Your task to perform on an android device: open device folders in google photos Image 0: 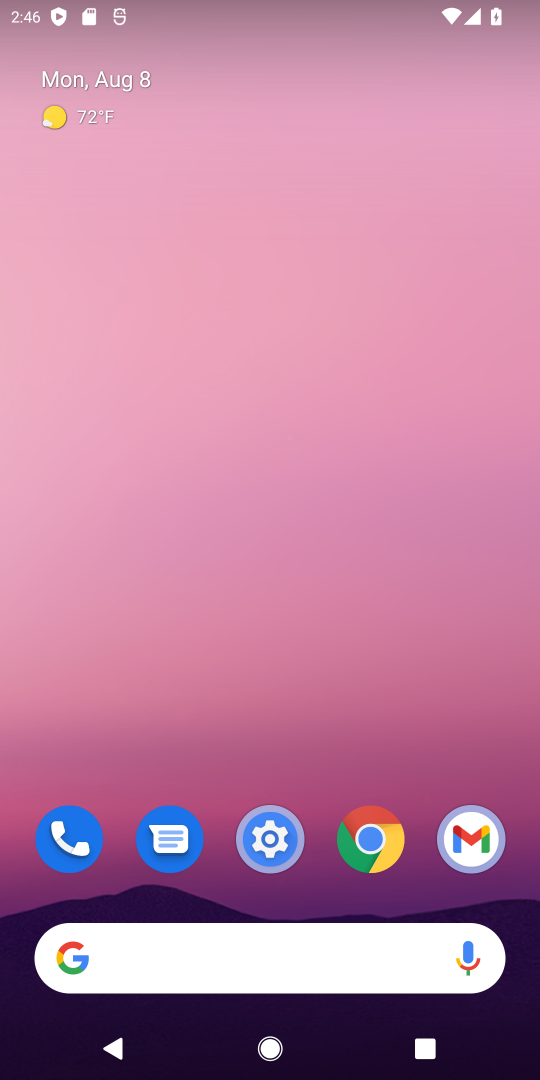
Step 0: press home button
Your task to perform on an android device: open device folders in google photos Image 1: 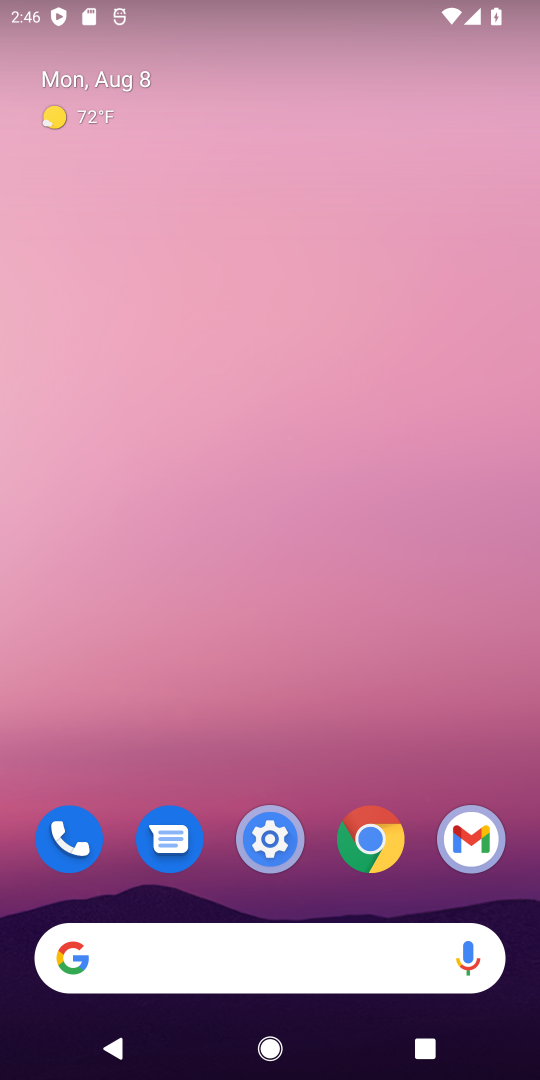
Step 1: drag from (408, 715) to (432, 259)
Your task to perform on an android device: open device folders in google photos Image 2: 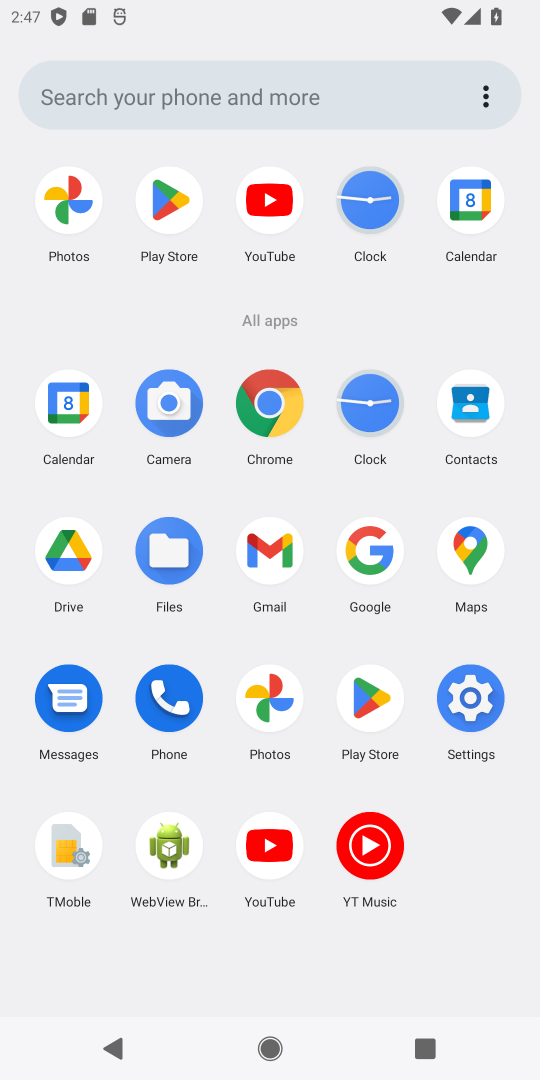
Step 2: click (264, 689)
Your task to perform on an android device: open device folders in google photos Image 3: 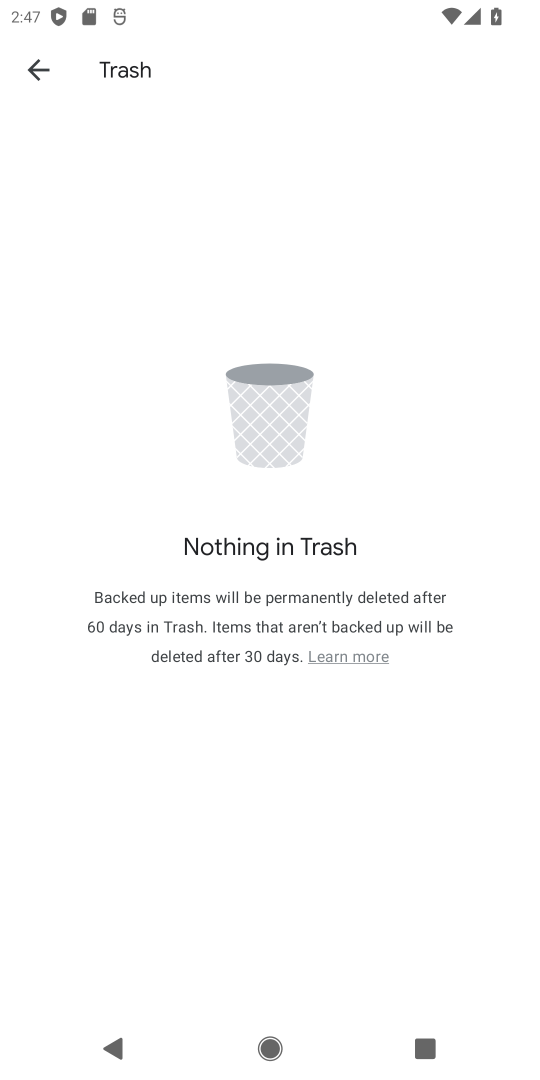
Step 3: press back button
Your task to perform on an android device: open device folders in google photos Image 4: 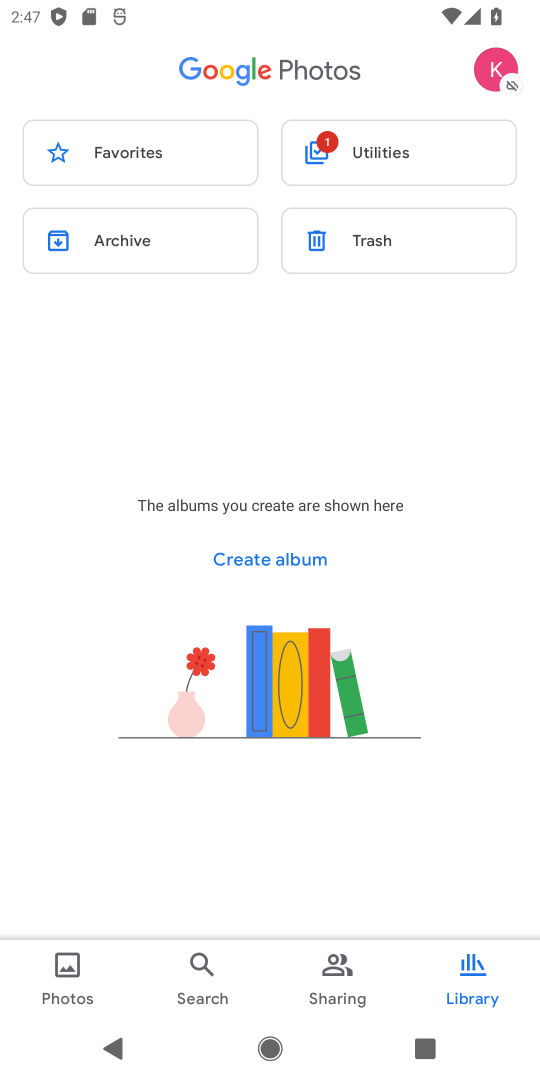
Step 4: click (496, 70)
Your task to perform on an android device: open device folders in google photos Image 5: 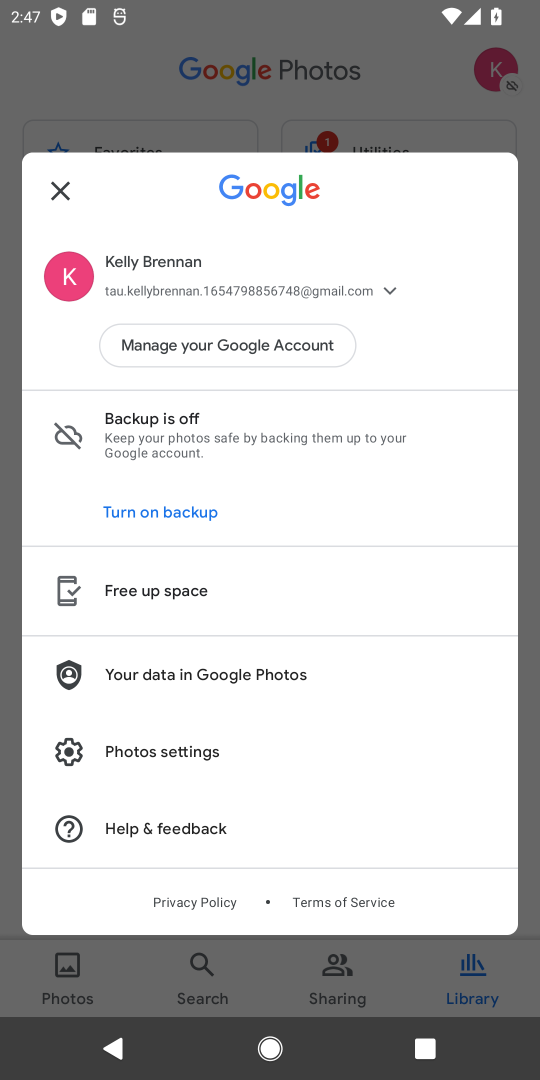
Step 5: task complete